Your task to perform on an android device: delete browsing data in the chrome app Image 0: 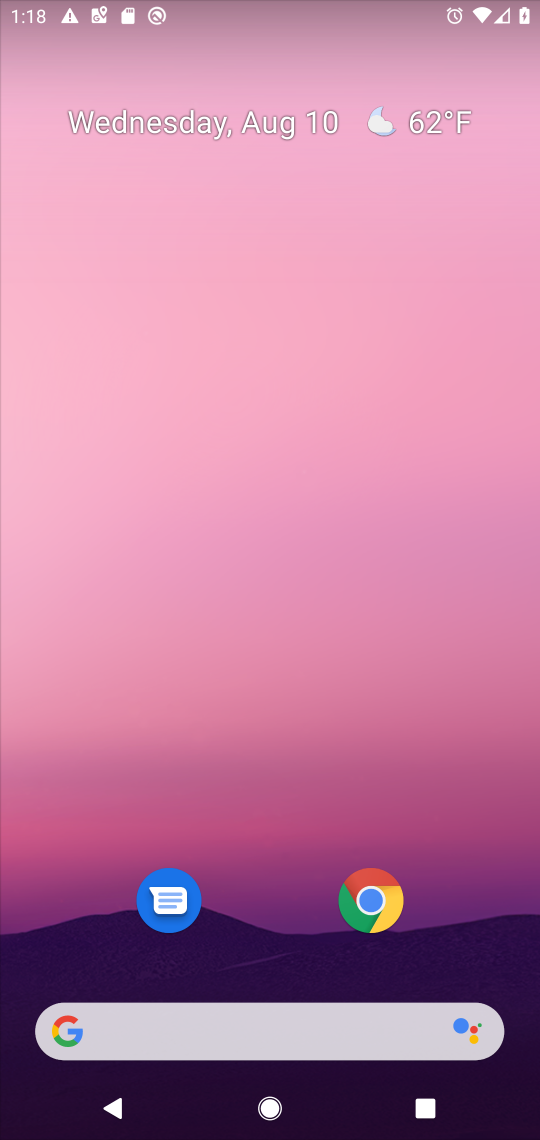
Step 0: click (379, 900)
Your task to perform on an android device: delete browsing data in the chrome app Image 1: 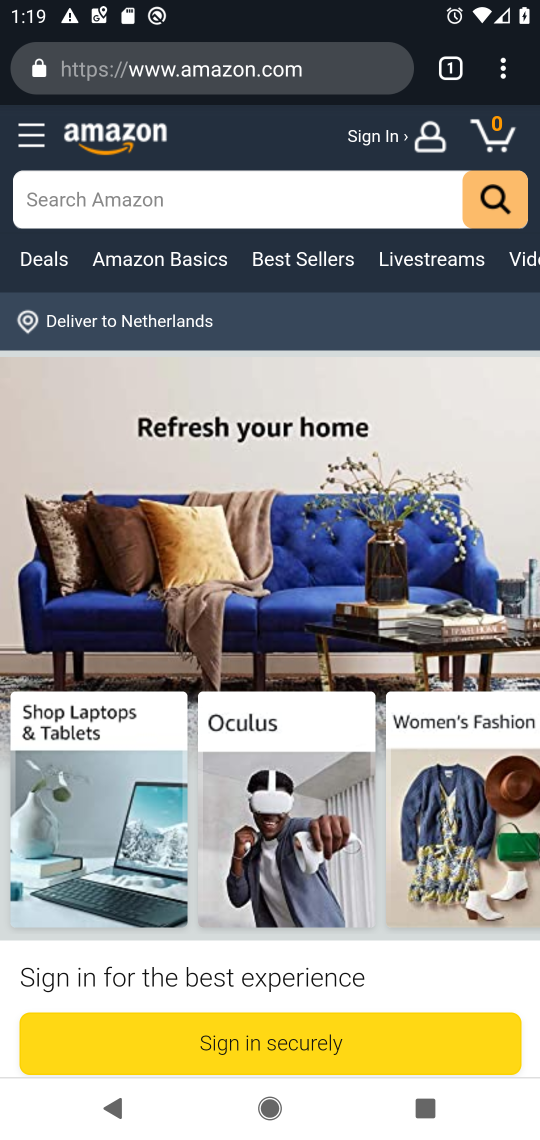
Step 1: click (498, 73)
Your task to perform on an android device: delete browsing data in the chrome app Image 2: 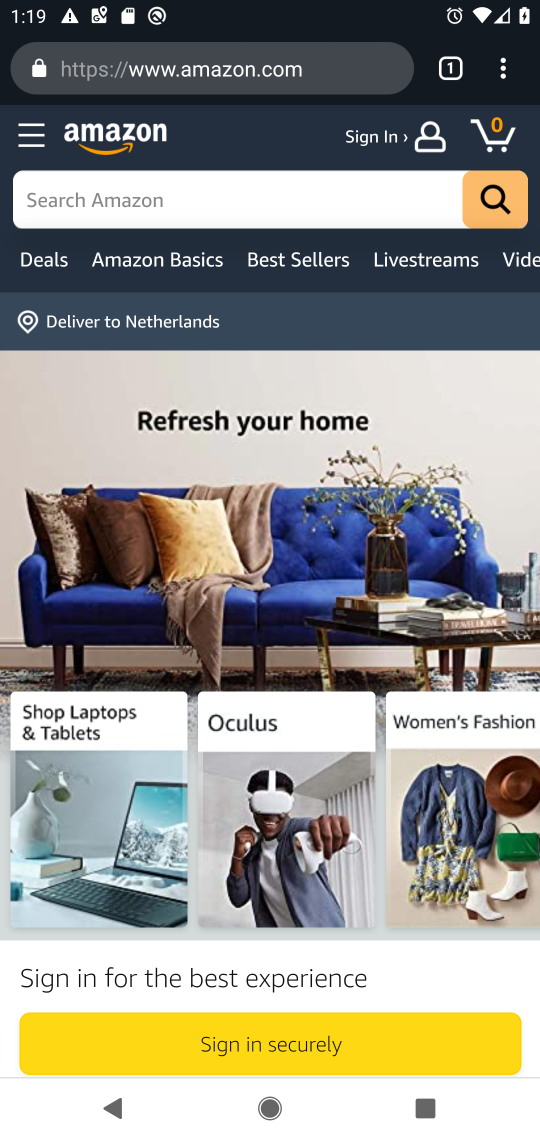
Step 2: click (498, 73)
Your task to perform on an android device: delete browsing data in the chrome app Image 3: 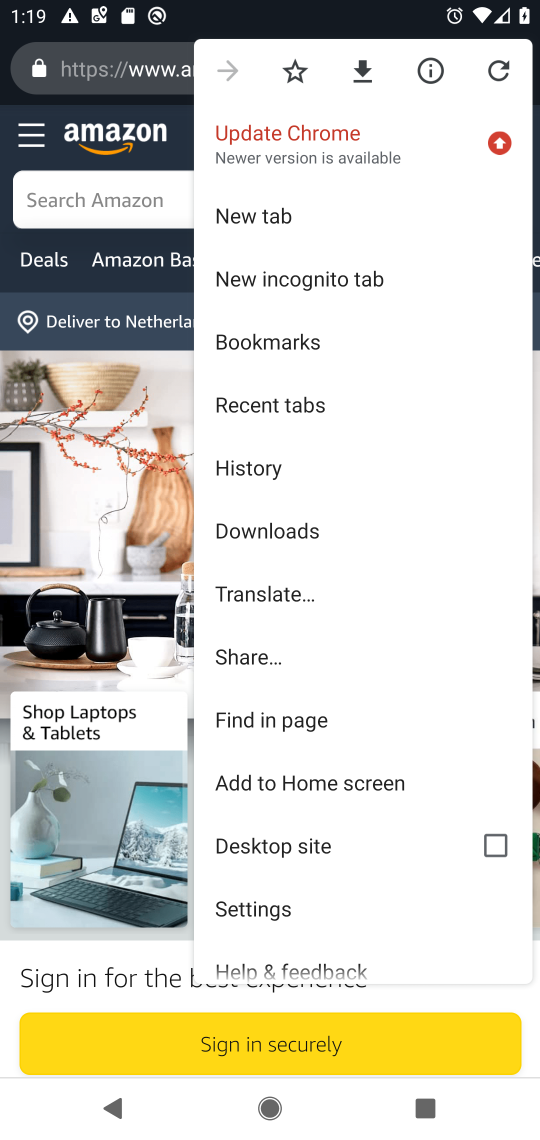
Step 3: click (269, 467)
Your task to perform on an android device: delete browsing data in the chrome app Image 4: 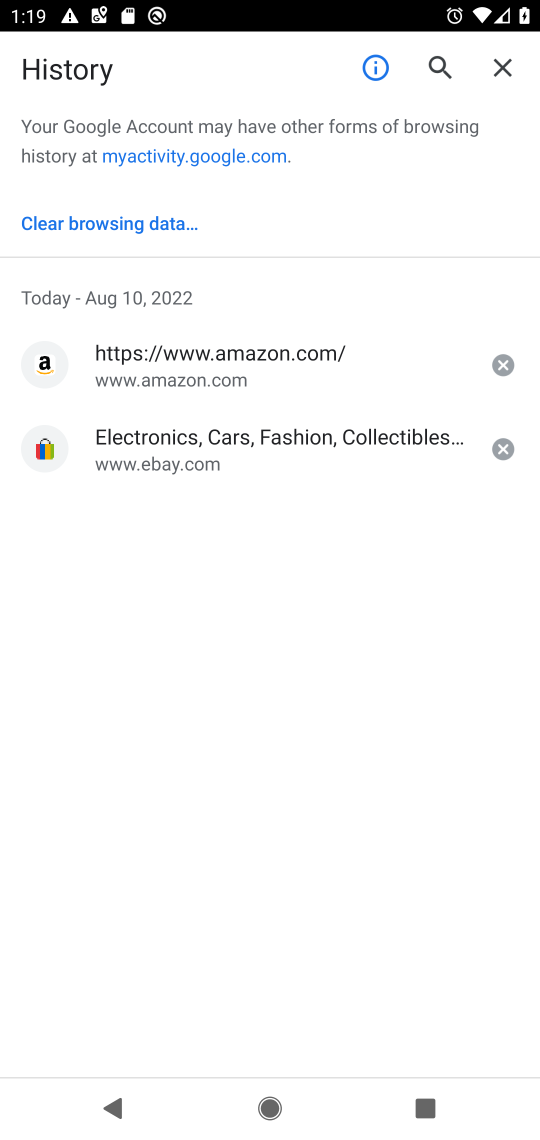
Step 4: click (115, 221)
Your task to perform on an android device: delete browsing data in the chrome app Image 5: 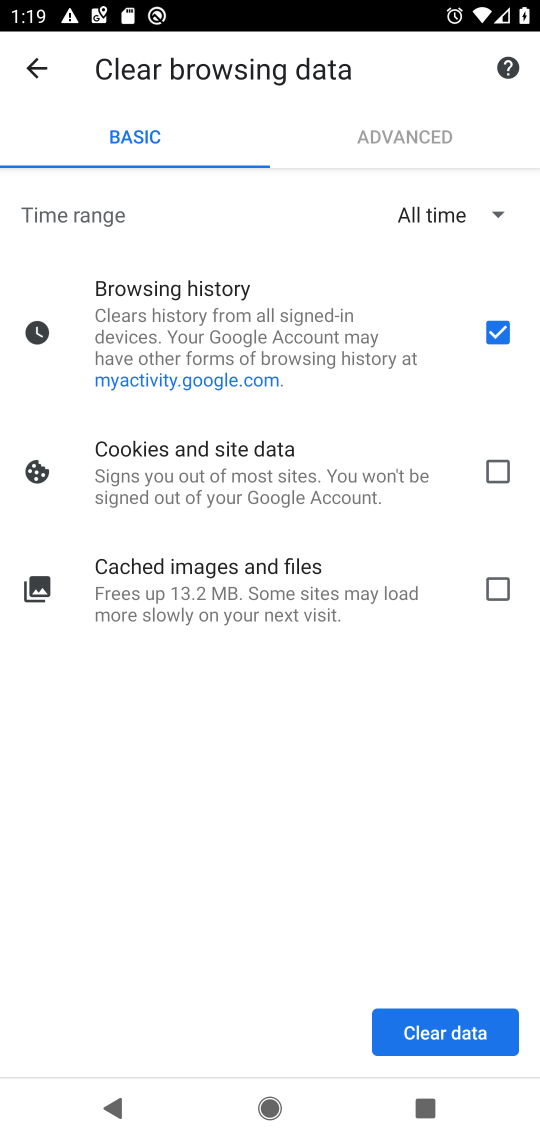
Step 5: click (499, 466)
Your task to perform on an android device: delete browsing data in the chrome app Image 6: 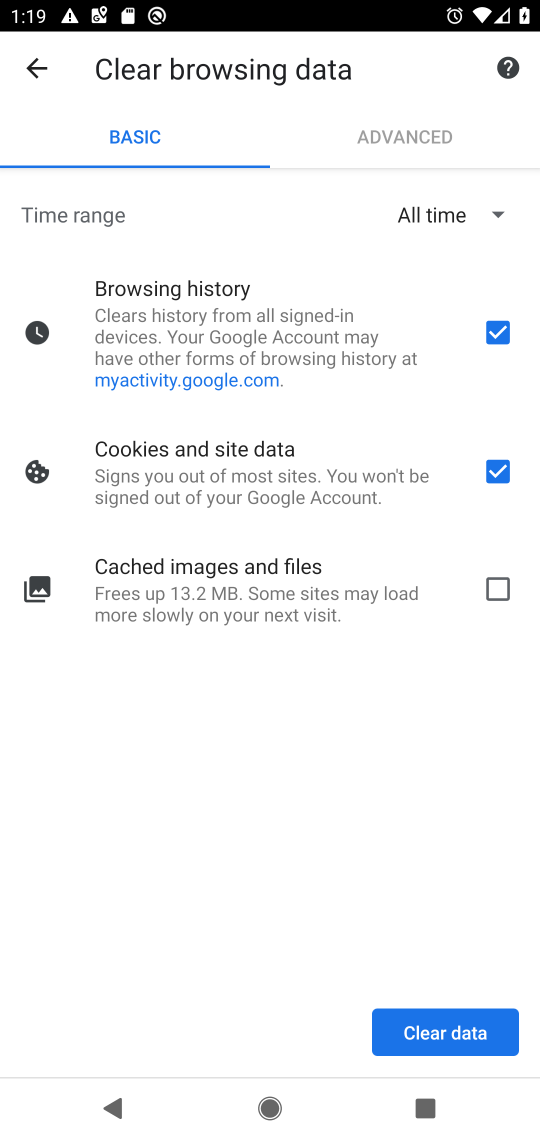
Step 6: click (492, 579)
Your task to perform on an android device: delete browsing data in the chrome app Image 7: 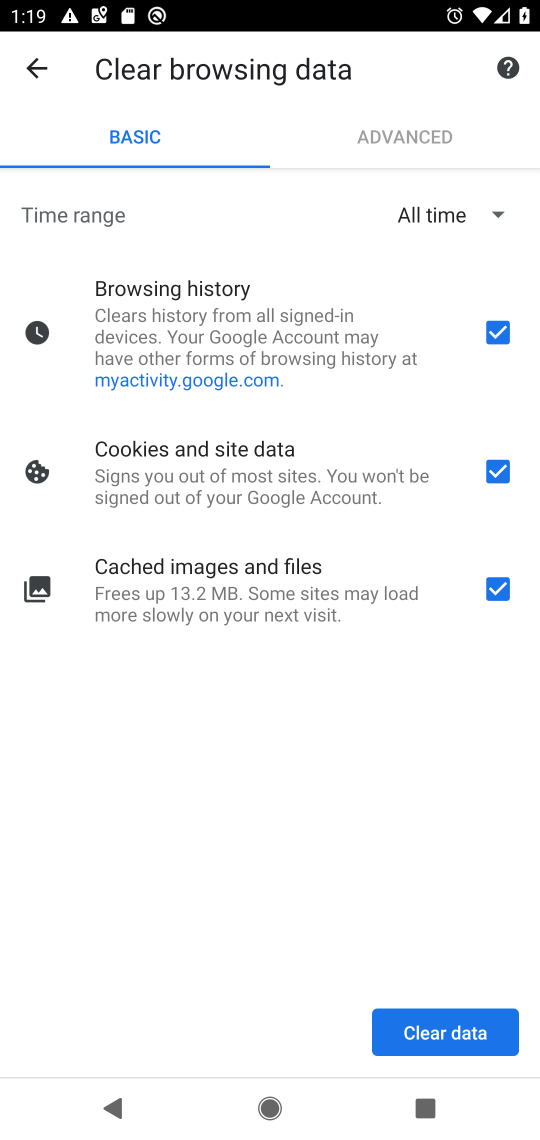
Step 7: click (476, 1029)
Your task to perform on an android device: delete browsing data in the chrome app Image 8: 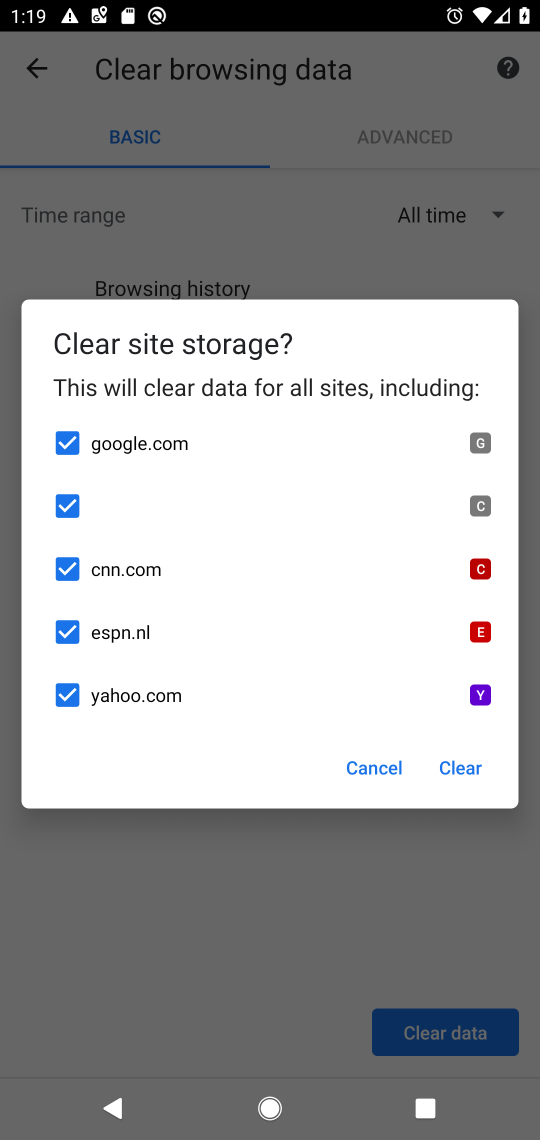
Step 8: click (471, 761)
Your task to perform on an android device: delete browsing data in the chrome app Image 9: 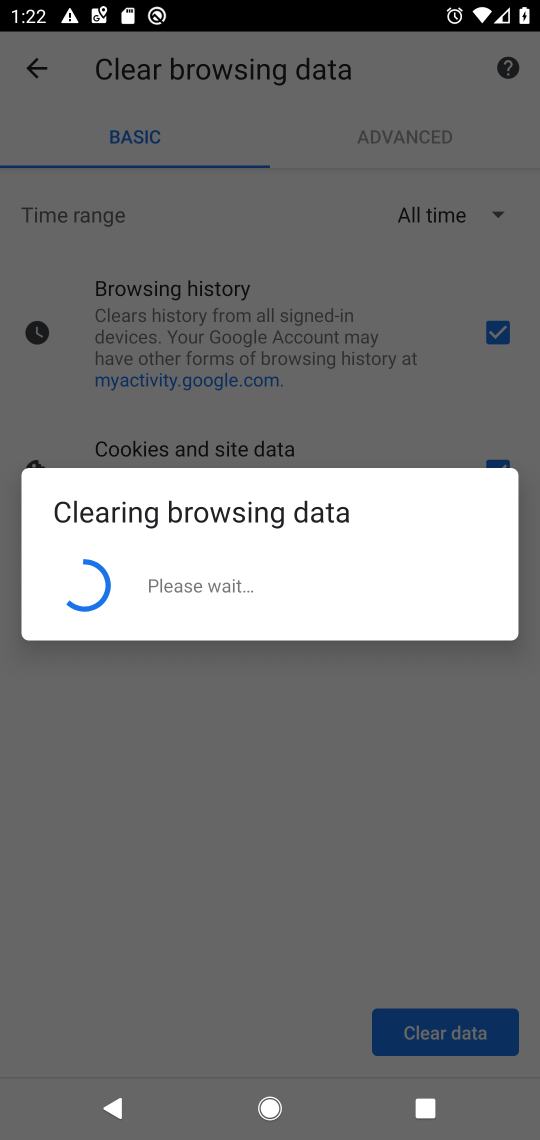
Step 9: task complete